Your task to perform on an android device: open app "PUBG MOBILE" Image 0: 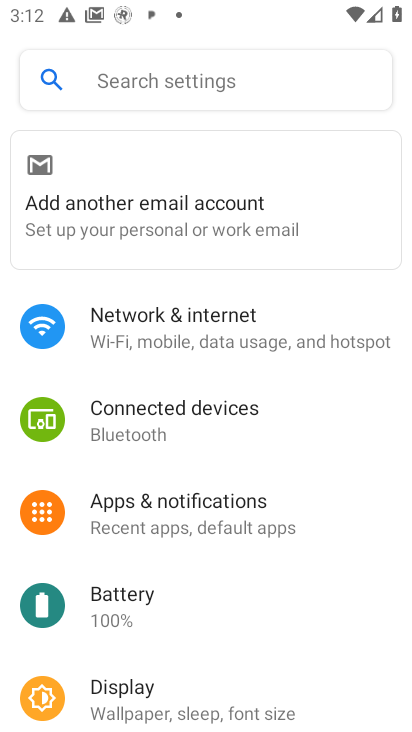
Step 0: press home button
Your task to perform on an android device: open app "PUBG MOBILE" Image 1: 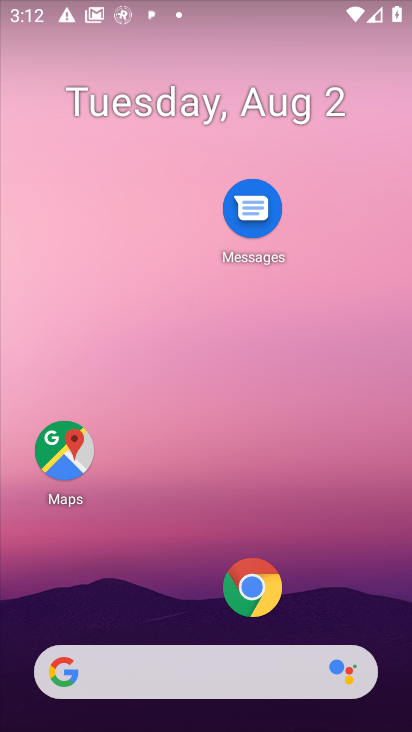
Step 1: drag from (146, 582) to (128, 245)
Your task to perform on an android device: open app "PUBG MOBILE" Image 2: 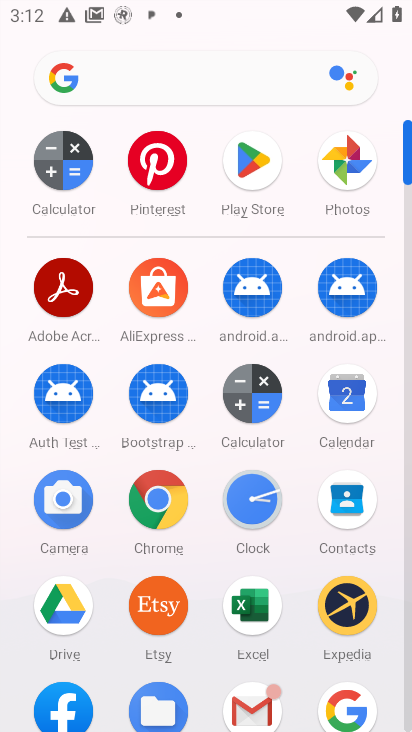
Step 2: click (263, 151)
Your task to perform on an android device: open app "PUBG MOBILE" Image 3: 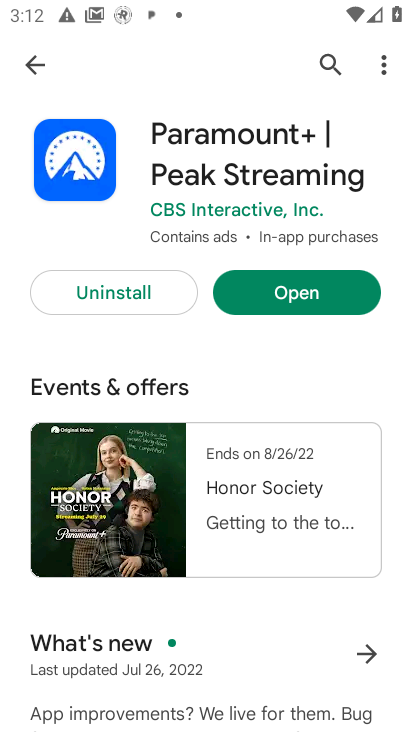
Step 3: click (321, 61)
Your task to perform on an android device: open app "PUBG MOBILE" Image 4: 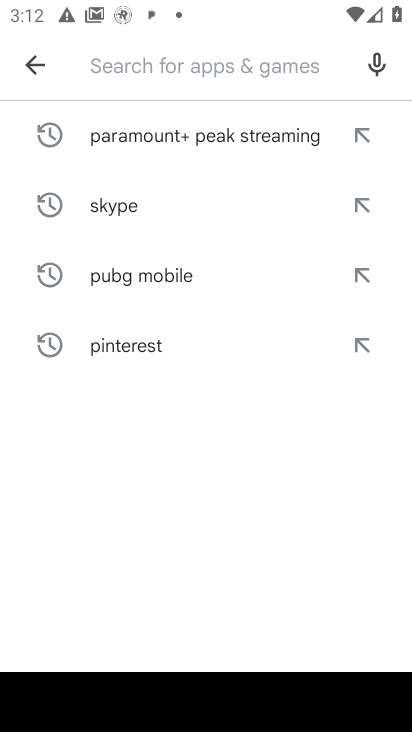
Step 4: type "PUBG MOBILE"
Your task to perform on an android device: open app "PUBG MOBILE" Image 5: 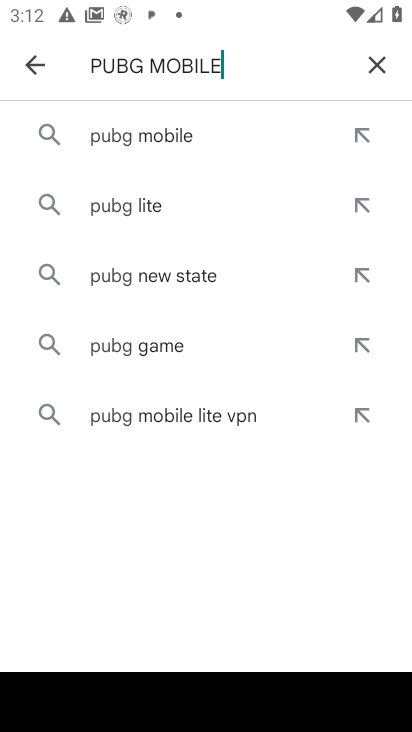
Step 5: type ""
Your task to perform on an android device: open app "PUBG MOBILE" Image 6: 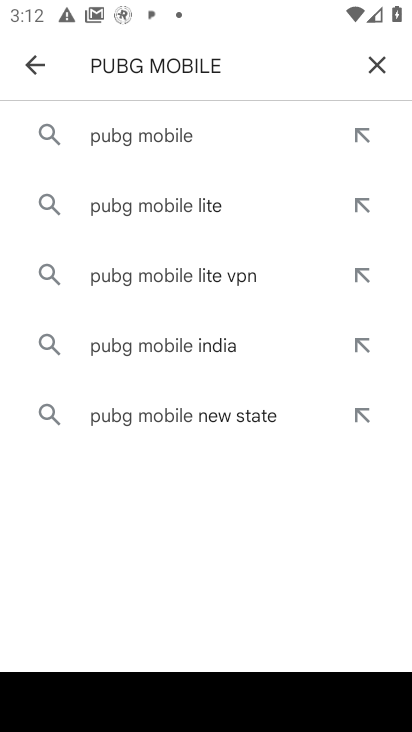
Step 6: click (221, 143)
Your task to perform on an android device: open app "PUBG MOBILE" Image 7: 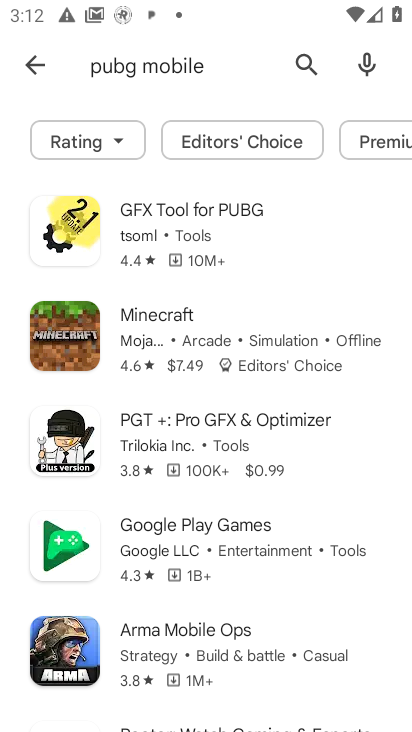
Step 7: task complete